Your task to perform on an android device: allow notifications from all sites in the chrome app Image 0: 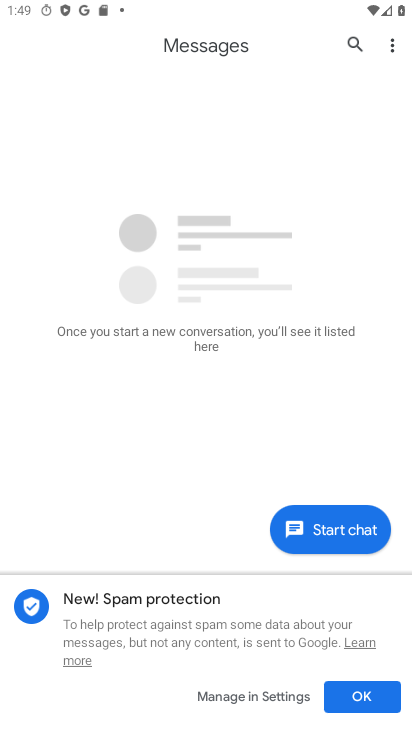
Step 0: press home button
Your task to perform on an android device: allow notifications from all sites in the chrome app Image 1: 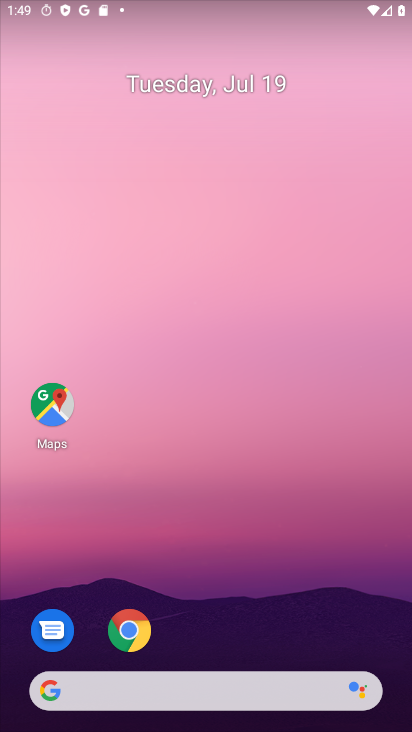
Step 1: click (131, 627)
Your task to perform on an android device: allow notifications from all sites in the chrome app Image 2: 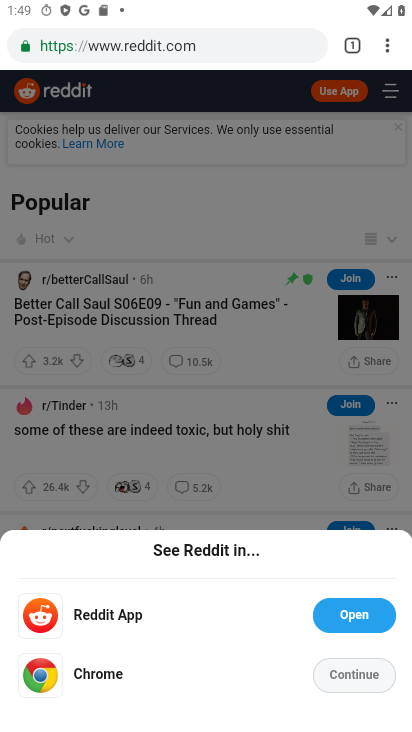
Step 2: click (388, 53)
Your task to perform on an android device: allow notifications from all sites in the chrome app Image 3: 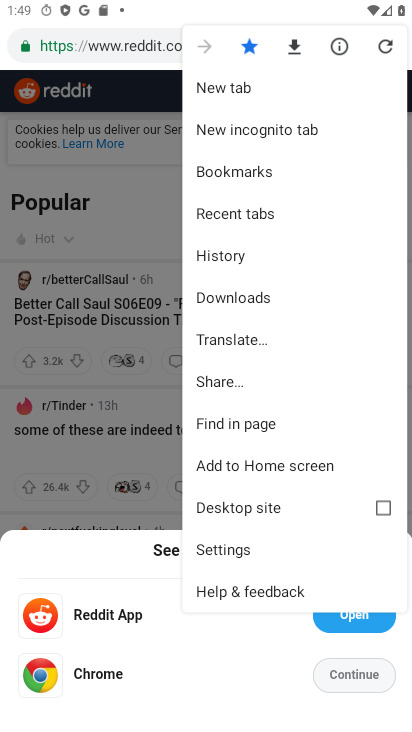
Step 3: click (236, 559)
Your task to perform on an android device: allow notifications from all sites in the chrome app Image 4: 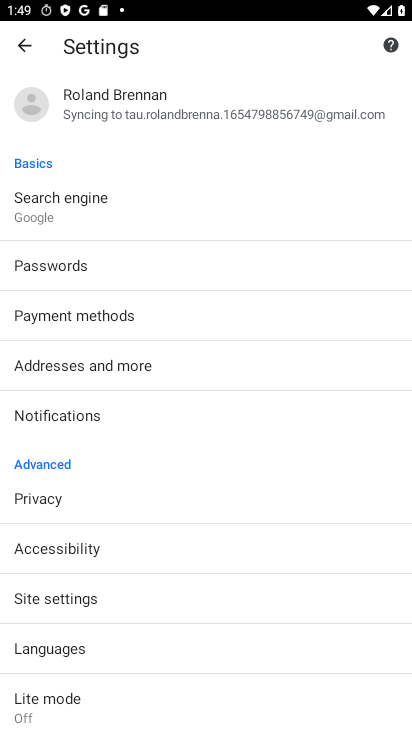
Step 4: click (59, 419)
Your task to perform on an android device: allow notifications from all sites in the chrome app Image 5: 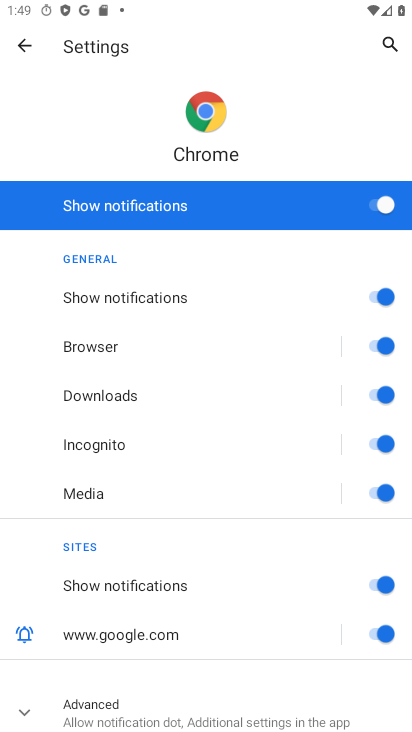
Step 5: task complete